Your task to perform on an android device: toggle location history Image 0: 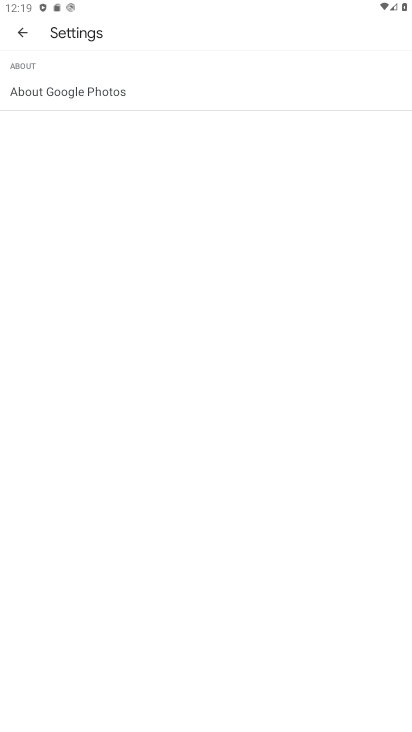
Step 0: task complete